Your task to perform on an android device: star an email in the gmail app Image 0: 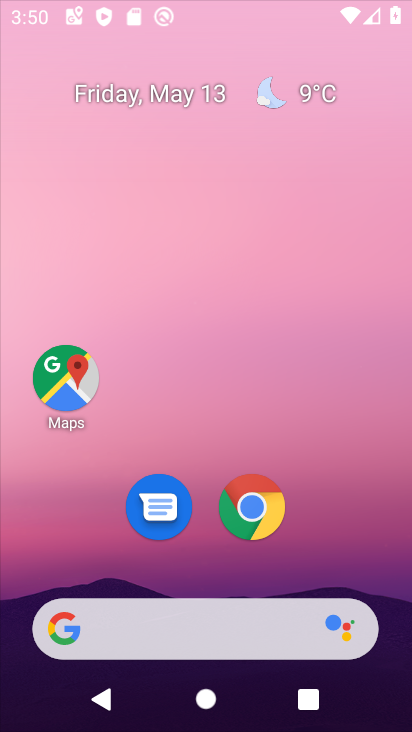
Step 0: drag from (343, 94) to (272, 43)
Your task to perform on an android device: star an email in the gmail app Image 1: 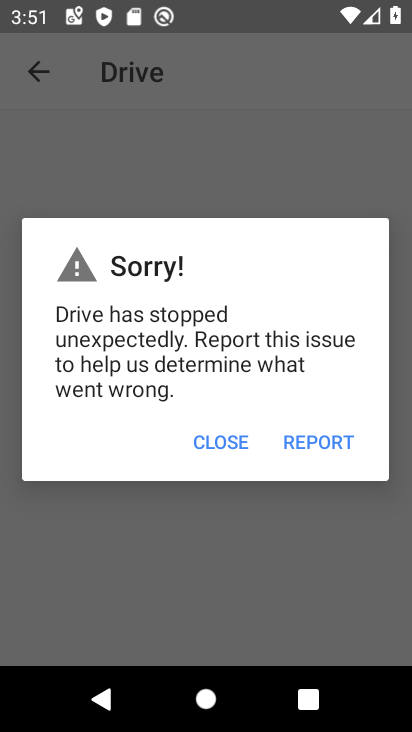
Step 1: press home button
Your task to perform on an android device: star an email in the gmail app Image 2: 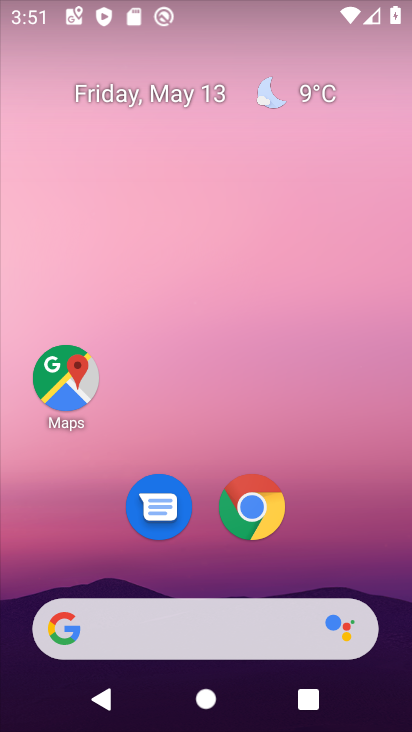
Step 2: drag from (362, 556) to (282, 3)
Your task to perform on an android device: star an email in the gmail app Image 3: 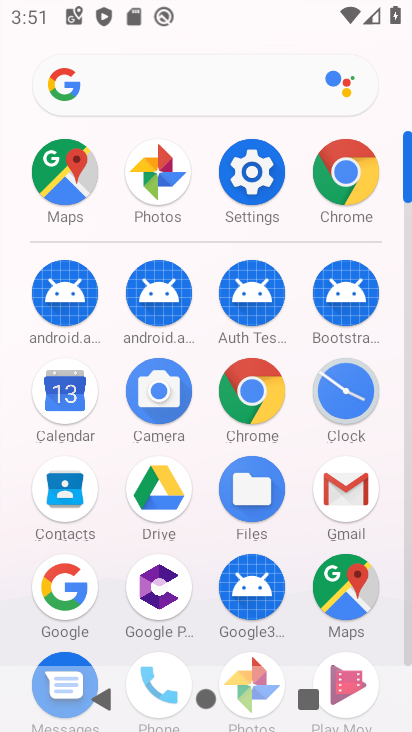
Step 3: click (338, 488)
Your task to perform on an android device: star an email in the gmail app Image 4: 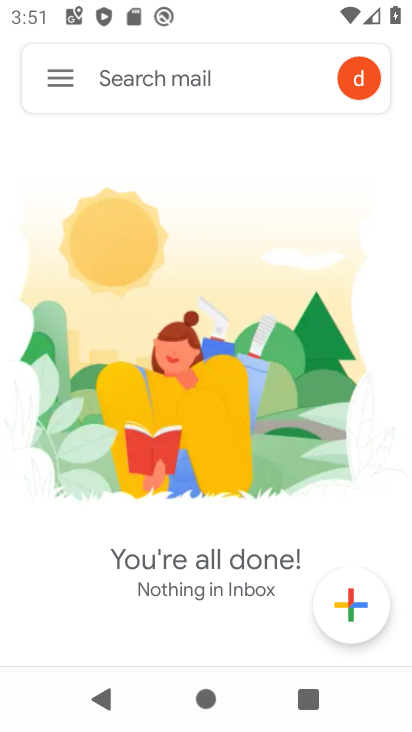
Step 4: click (56, 104)
Your task to perform on an android device: star an email in the gmail app Image 5: 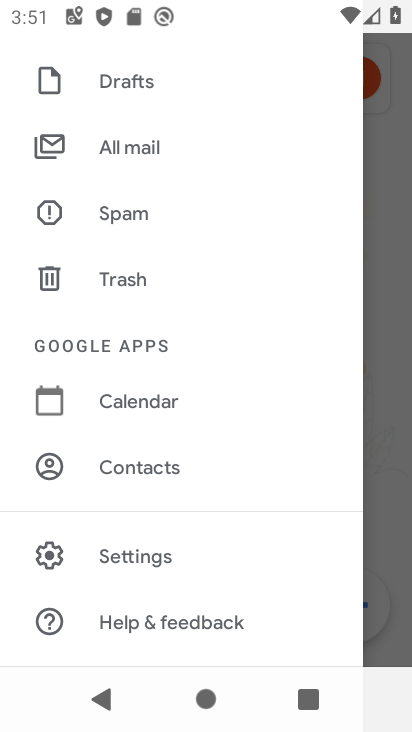
Step 5: click (66, 710)
Your task to perform on an android device: star an email in the gmail app Image 6: 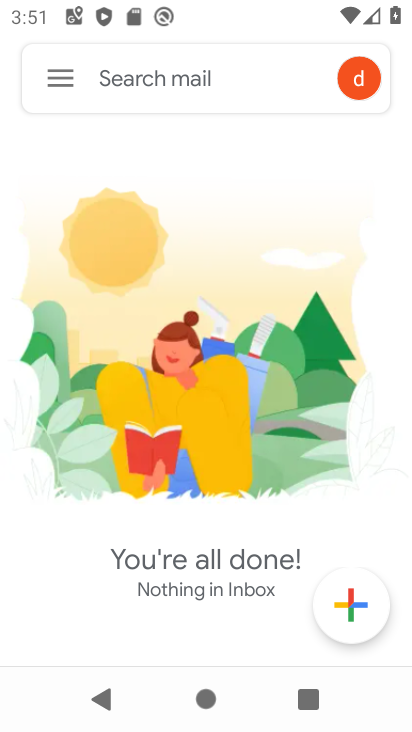
Step 6: task complete